Your task to perform on an android device: Show me recent news Image 0: 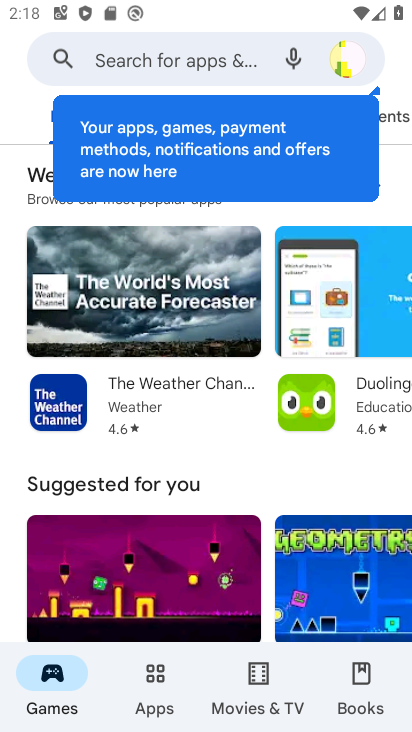
Step 0: press home button
Your task to perform on an android device: Show me recent news Image 1: 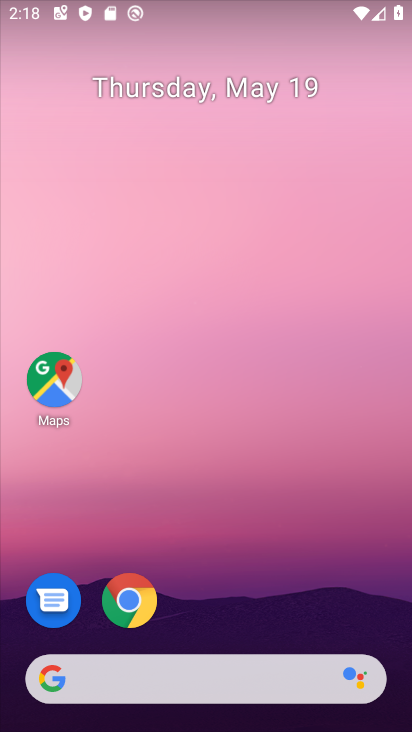
Step 1: drag from (155, 597) to (166, 202)
Your task to perform on an android device: Show me recent news Image 2: 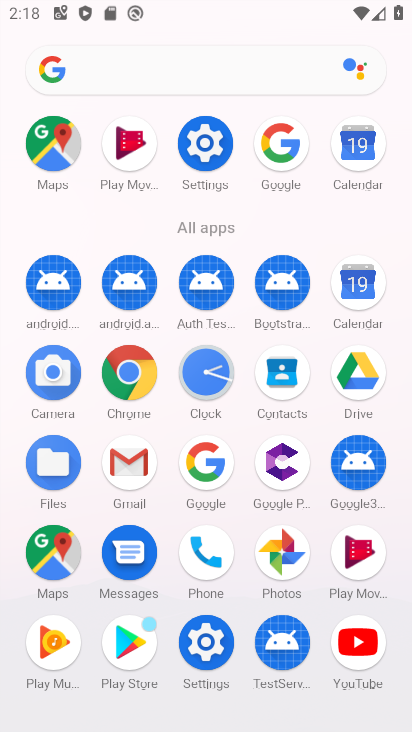
Step 2: click (290, 141)
Your task to perform on an android device: Show me recent news Image 3: 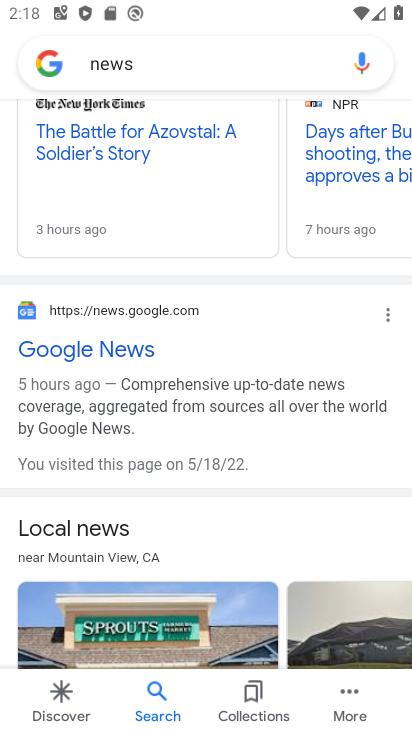
Step 3: click (162, 65)
Your task to perform on an android device: Show me recent news Image 4: 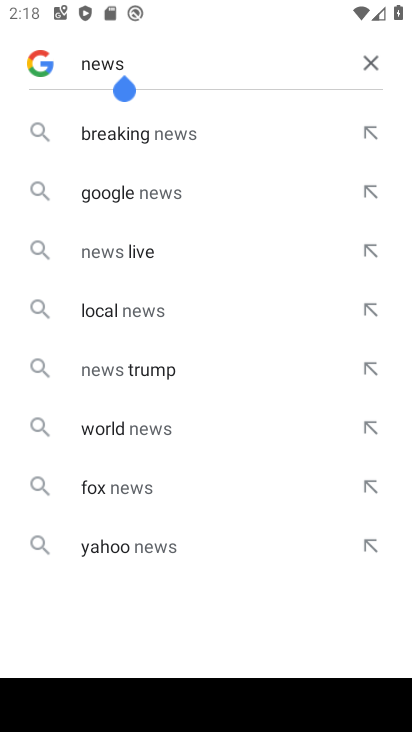
Step 4: click (376, 64)
Your task to perform on an android device: Show me recent news Image 5: 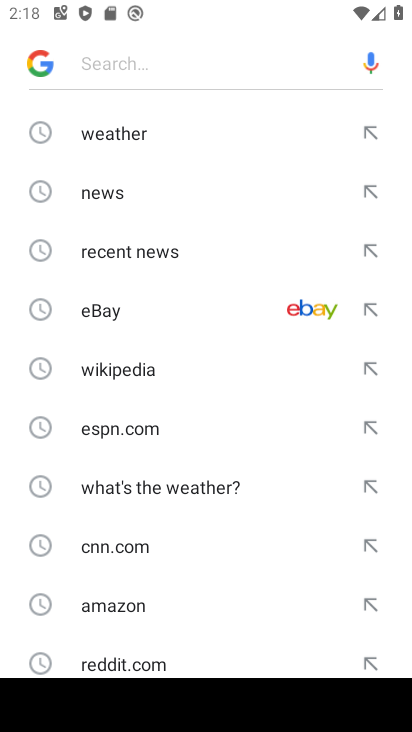
Step 5: click (147, 249)
Your task to perform on an android device: Show me recent news Image 6: 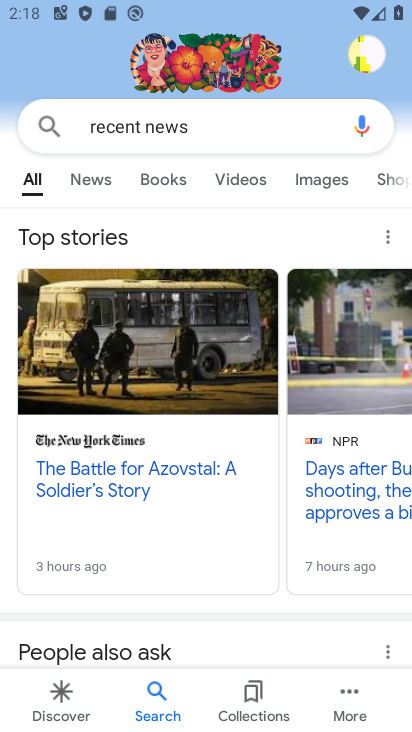
Step 6: task complete